Your task to perform on an android device: Add acer nitro to the cart on costco.com Image 0: 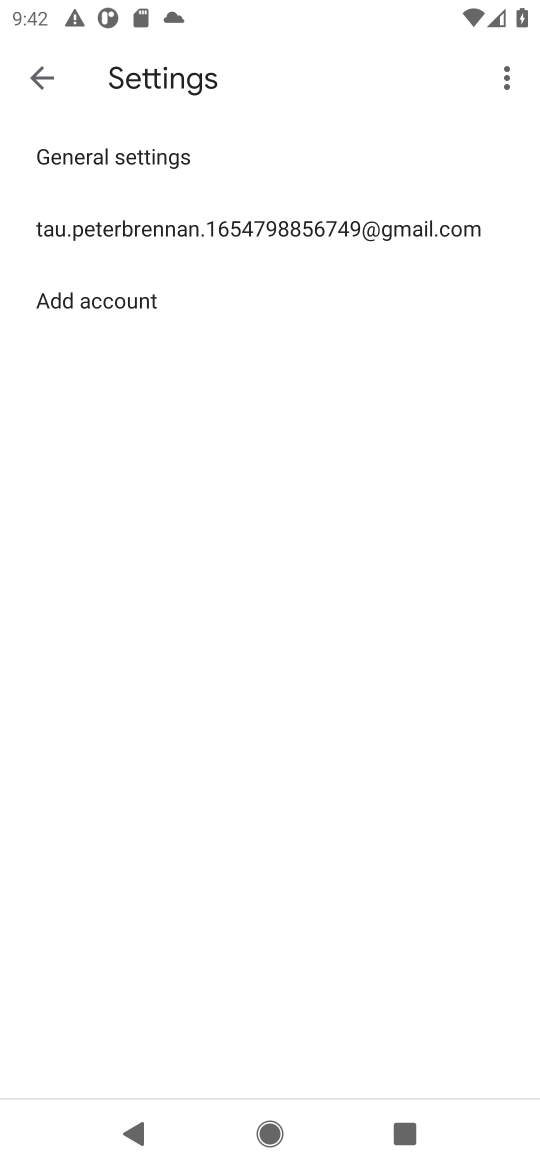
Step 0: press home button
Your task to perform on an android device: Add acer nitro to the cart on costco.com Image 1: 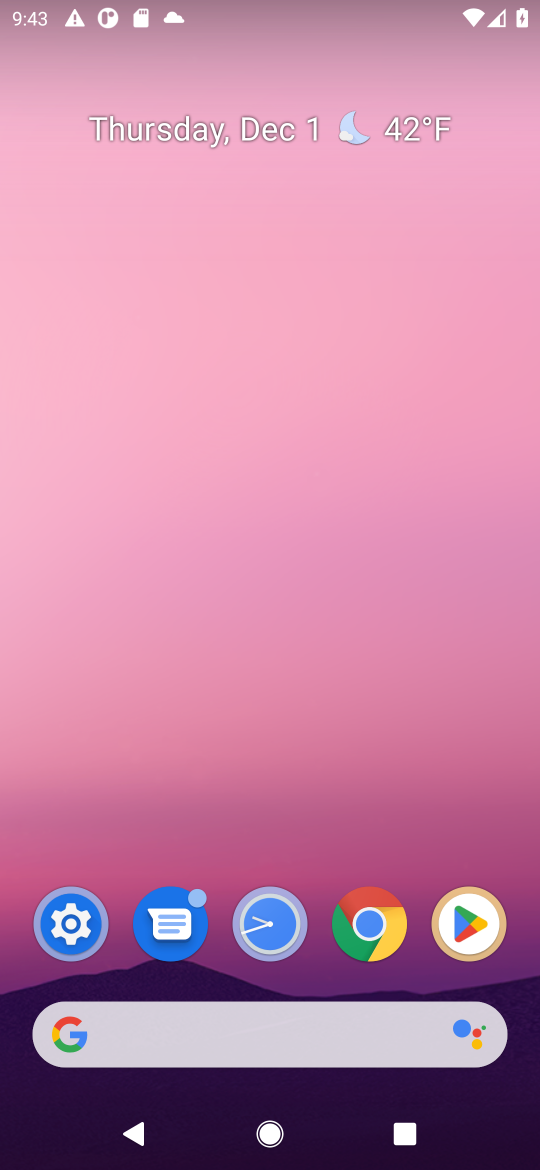
Step 1: click (267, 1045)
Your task to perform on an android device: Add acer nitro to the cart on costco.com Image 2: 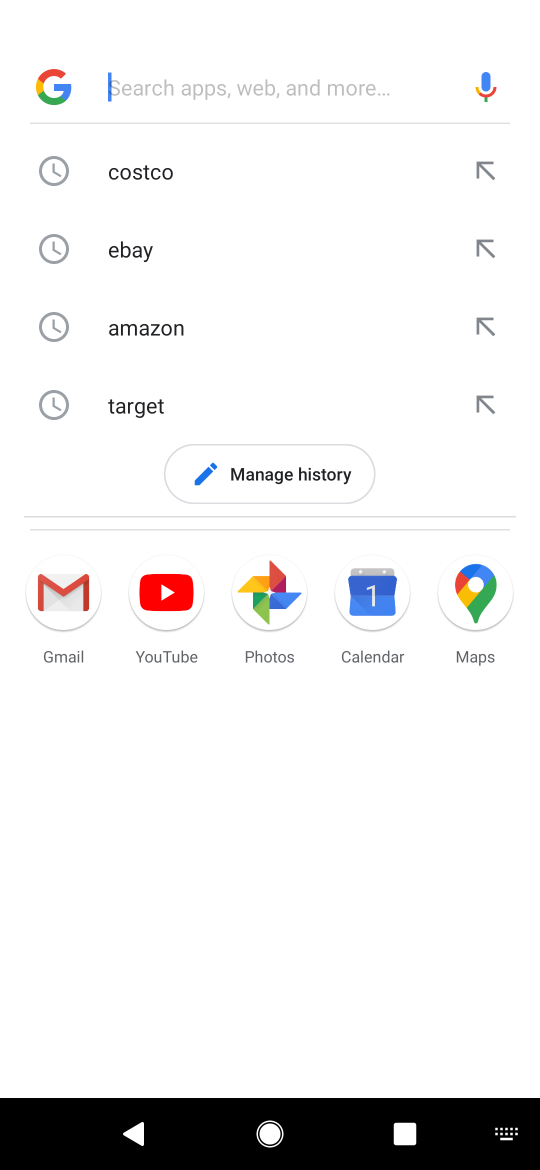
Step 2: type "costco"
Your task to perform on an android device: Add acer nitro to the cart on costco.com Image 3: 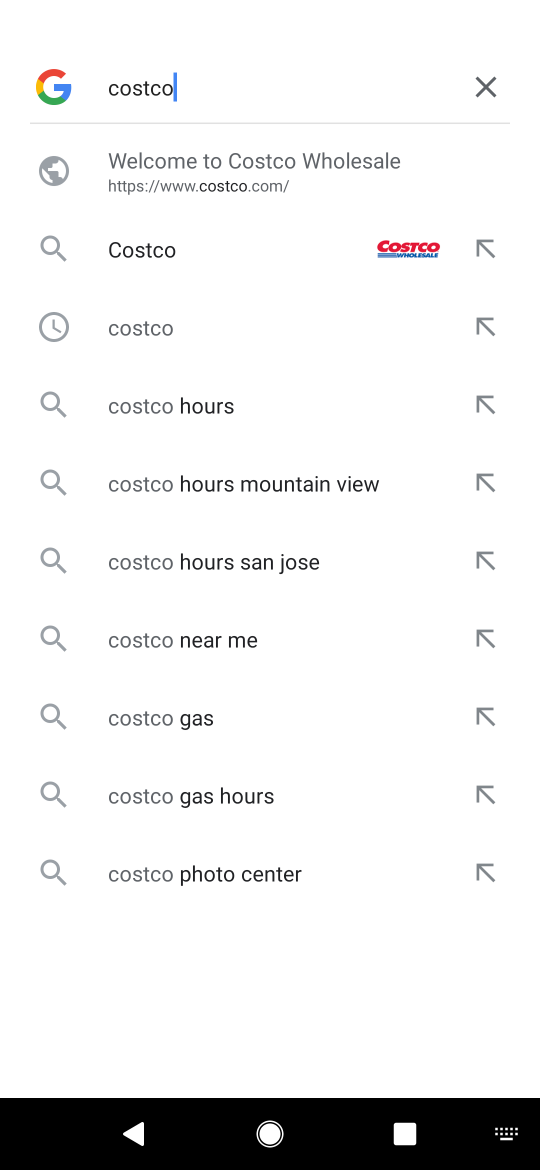
Step 3: click (225, 203)
Your task to perform on an android device: Add acer nitro to the cart on costco.com Image 4: 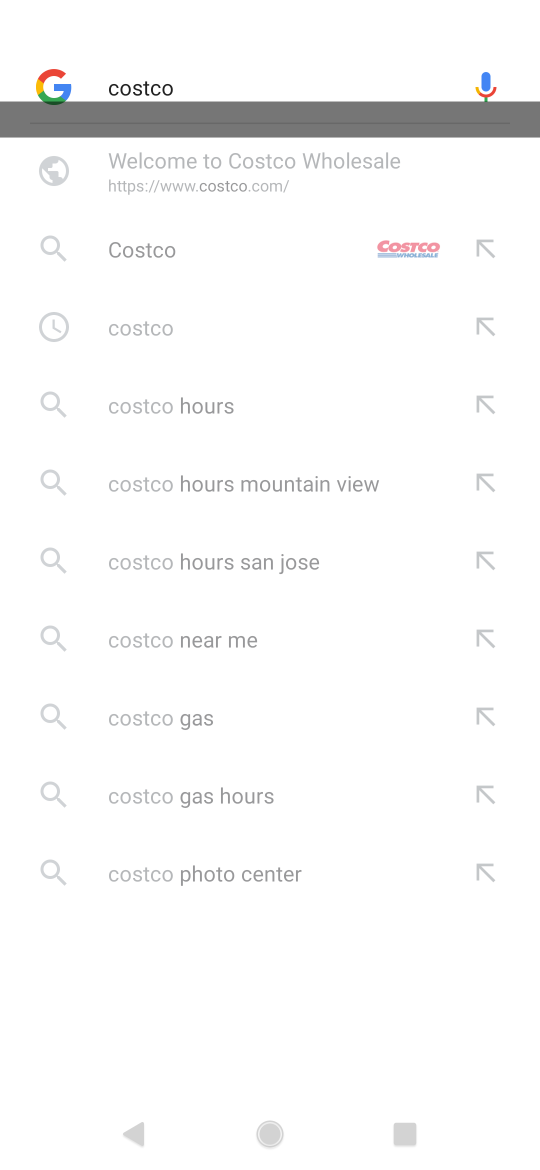
Step 4: task complete